Your task to perform on an android device: refresh tabs in the chrome app Image 0: 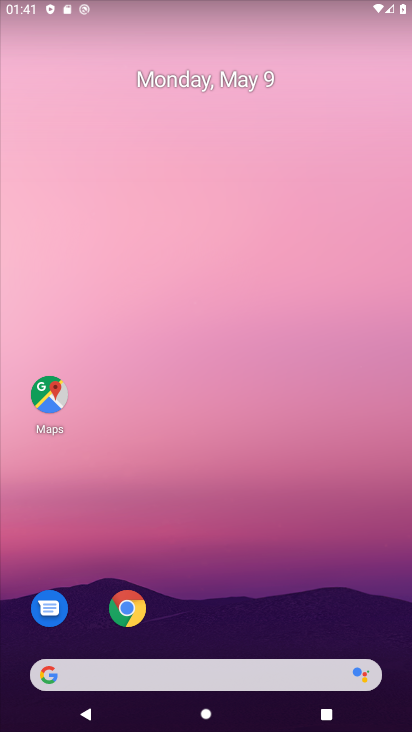
Step 0: click (135, 599)
Your task to perform on an android device: refresh tabs in the chrome app Image 1: 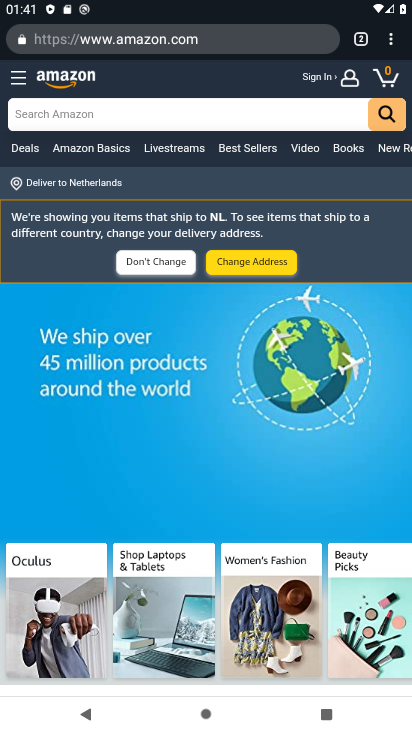
Step 1: click (395, 34)
Your task to perform on an android device: refresh tabs in the chrome app Image 2: 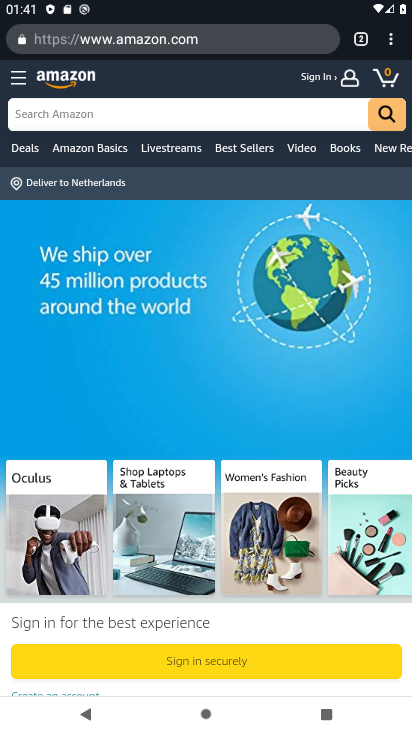
Step 2: task complete